Your task to perform on an android device: see sites visited before in the chrome app Image 0: 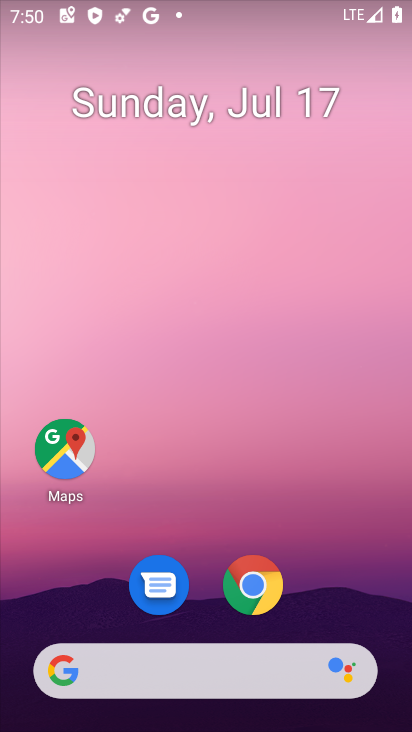
Step 0: click (259, 586)
Your task to perform on an android device: see sites visited before in the chrome app Image 1: 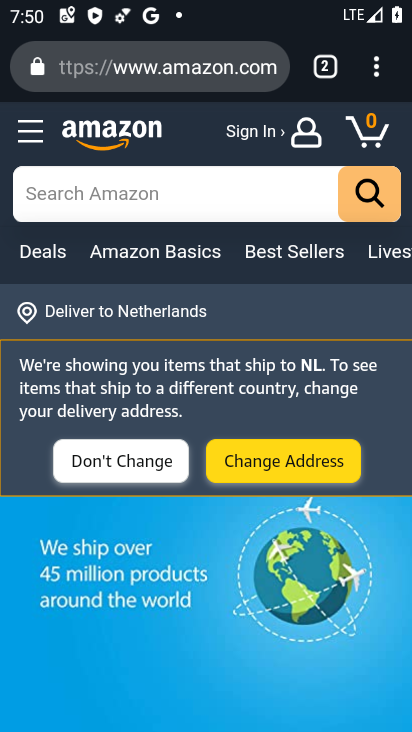
Step 1: click (377, 69)
Your task to perform on an android device: see sites visited before in the chrome app Image 2: 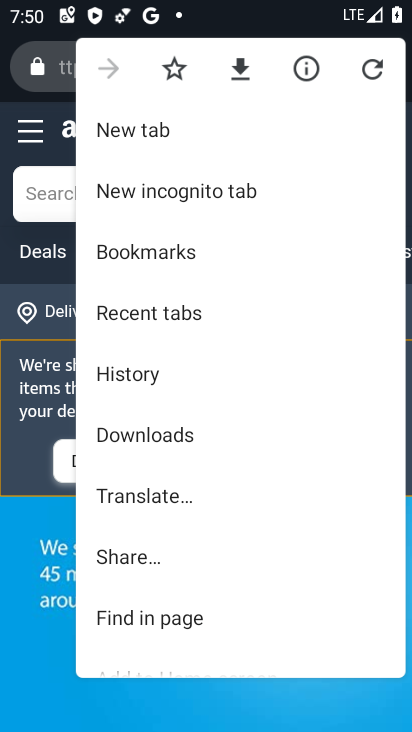
Step 2: click (162, 310)
Your task to perform on an android device: see sites visited before in the chrome app Image 3: 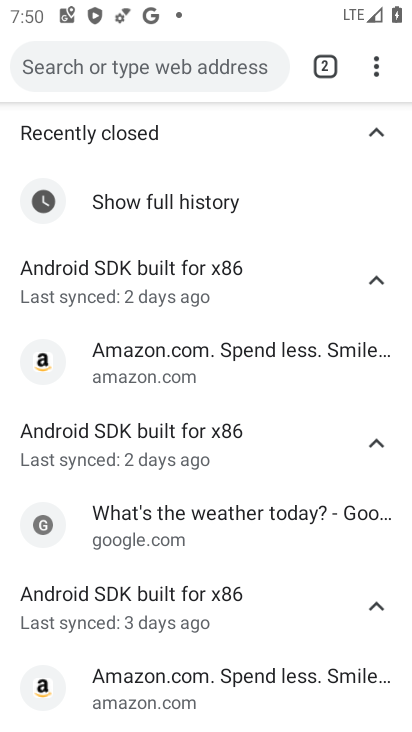
Step 3: task complete